Your task to perform on an android device: stop showing notifications on the lock screen Image 0: 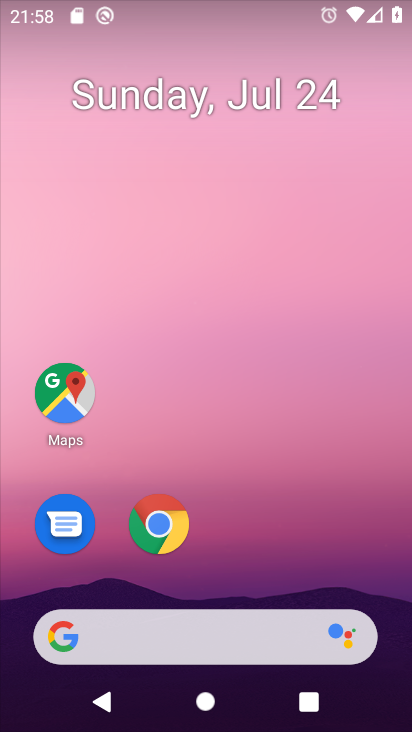
Step 0: drag from (308, 550) to (165, 127)
Your task to perform on an android device: stop showing notifications on the lock screen Image 1: 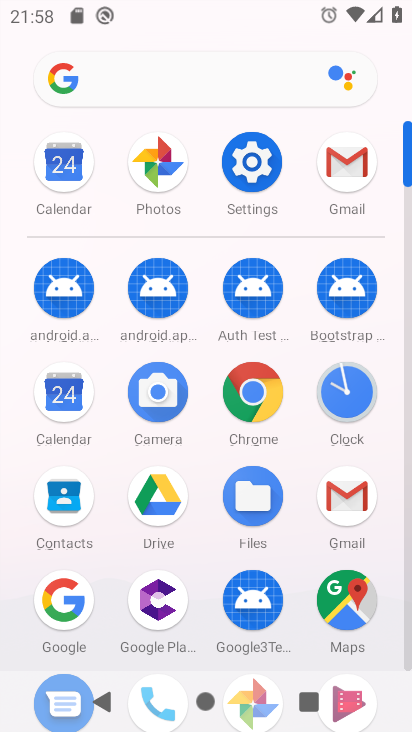
Step 1: click (249, 157)
Your task to perform on an android device: stop showing notifications on the lock screen Image 2: 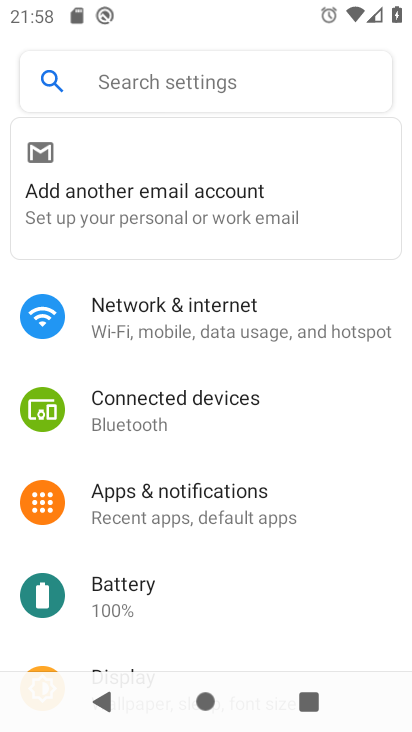
Step 2: click (191, 509)
Your task to perform on an android device: stop showing notifications on the lock screen Image 3: 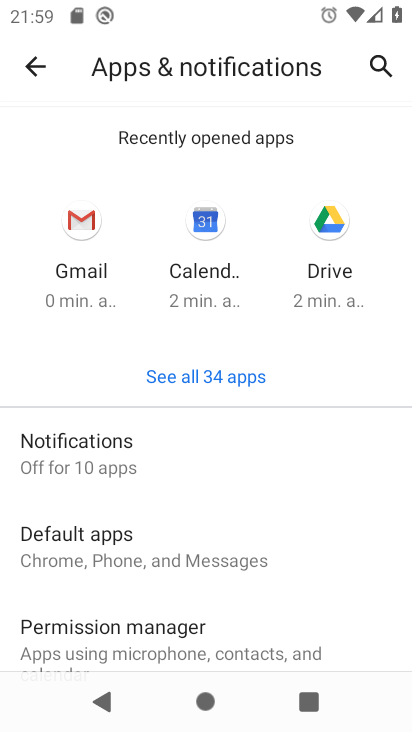
Step 3: click (119, 453)
Your task to perform on an android device: stop showing notifications on the lock screen Image 4: 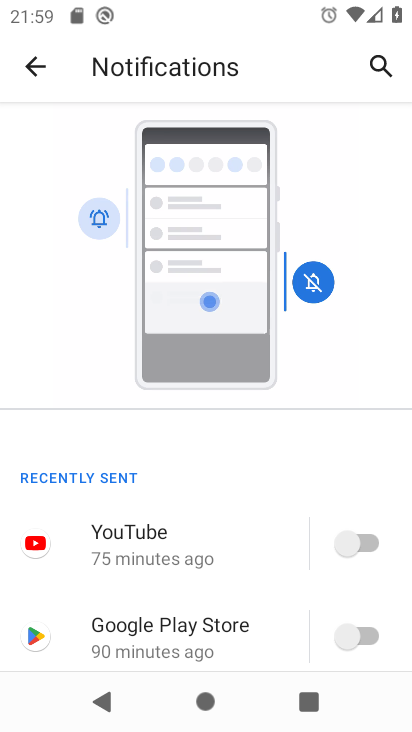
Step 4: task complete